Your task to perform on an android device: uninstall "Facebook" Image 0: 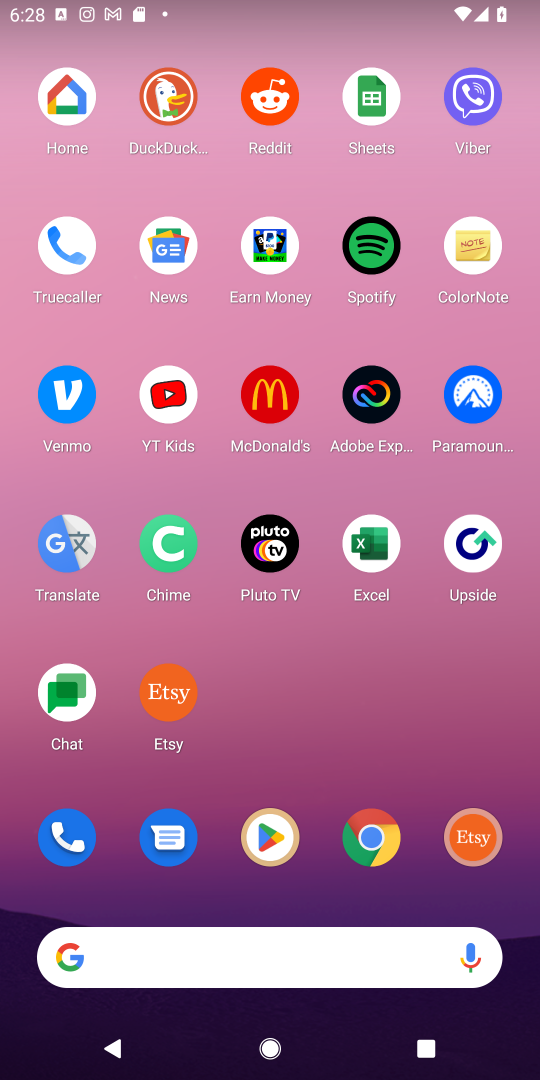
Step 0: press home button
Your task to perform on an android device: uninstall "Facebook" Image 1: 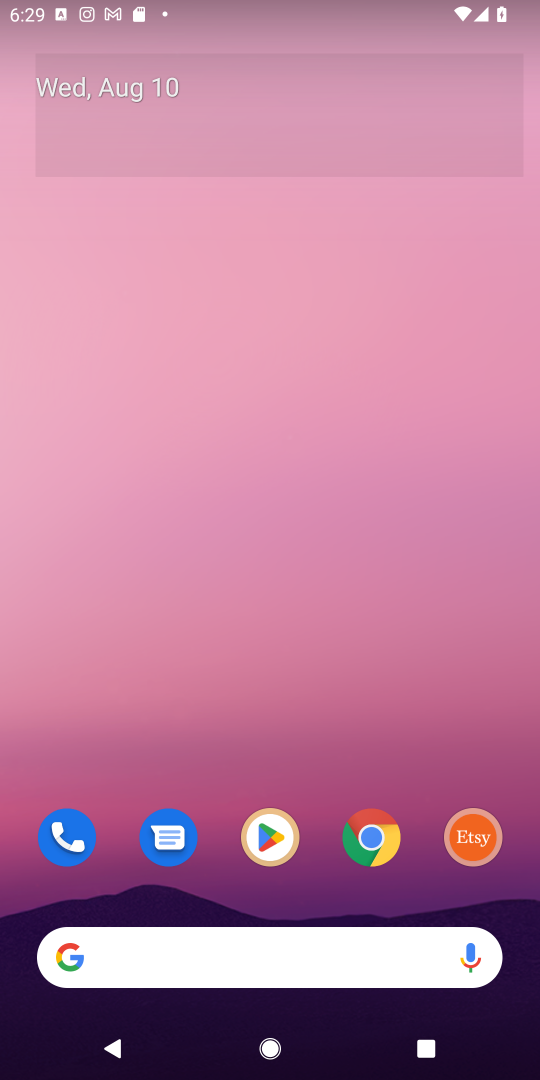
Step 1: click (266, 823)
Your task to perform on an android device: uninstall "Facebook" Image 2: 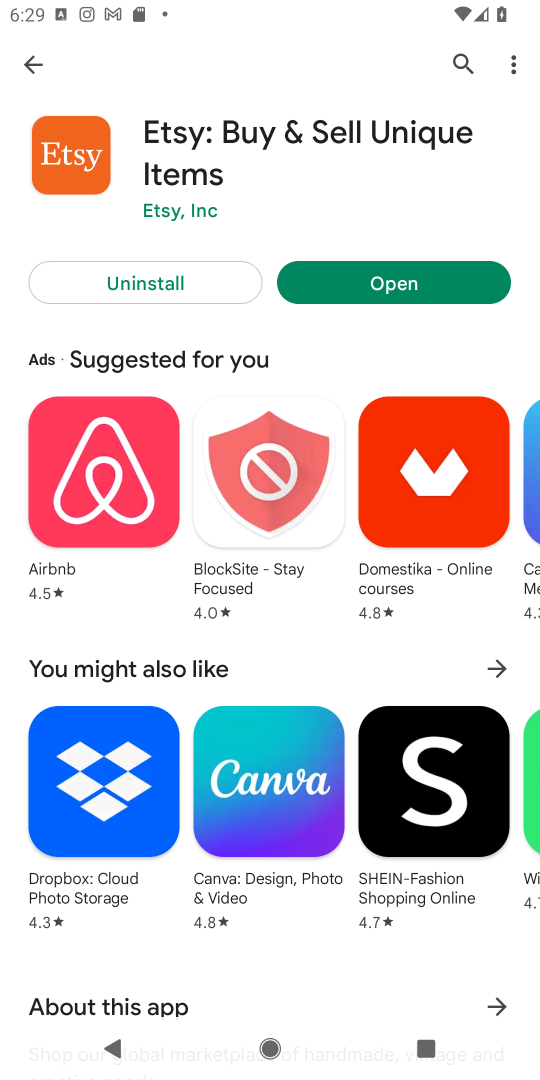
Step 2: click (460, 64)
Your task to perform on an android device: uninstall "Facebook" Image 3: 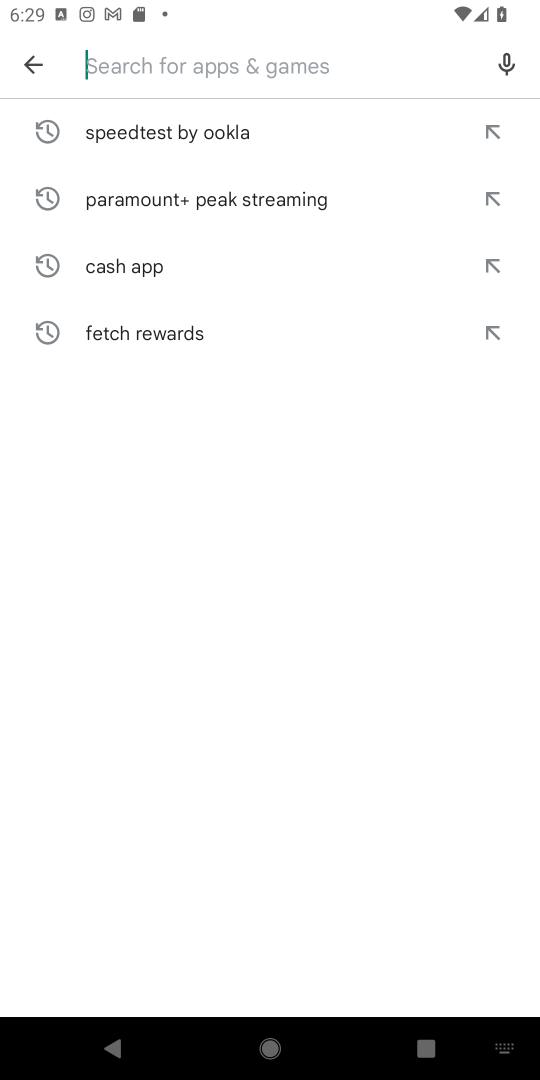
Step 3: type "Facebook"
Your task to perform on an android device: uninstall "Facebook" Image 4: 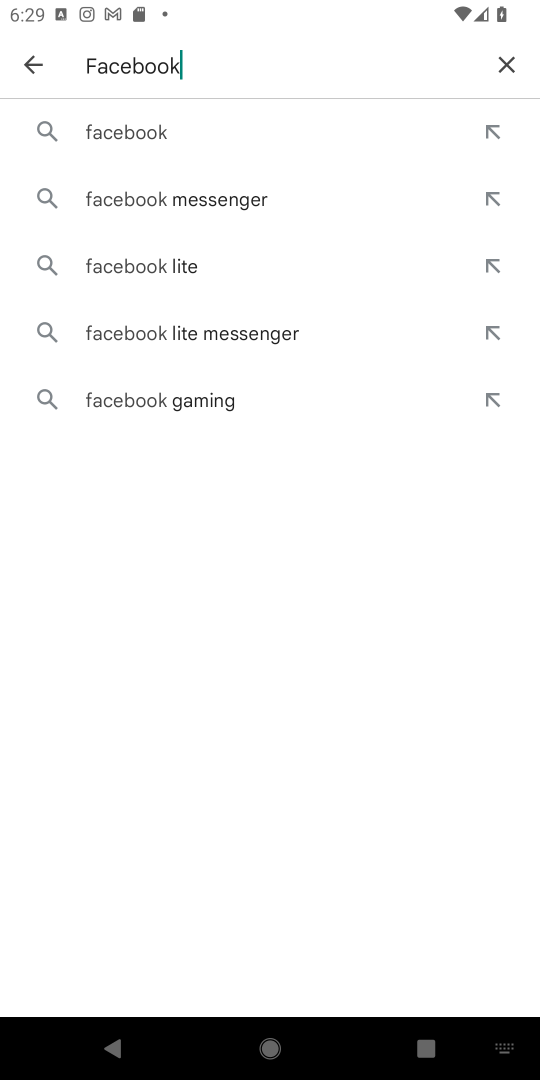
Step 4: click (150, 126)
Your task to perform on an android device: uninstall "Facebook" Image 5: 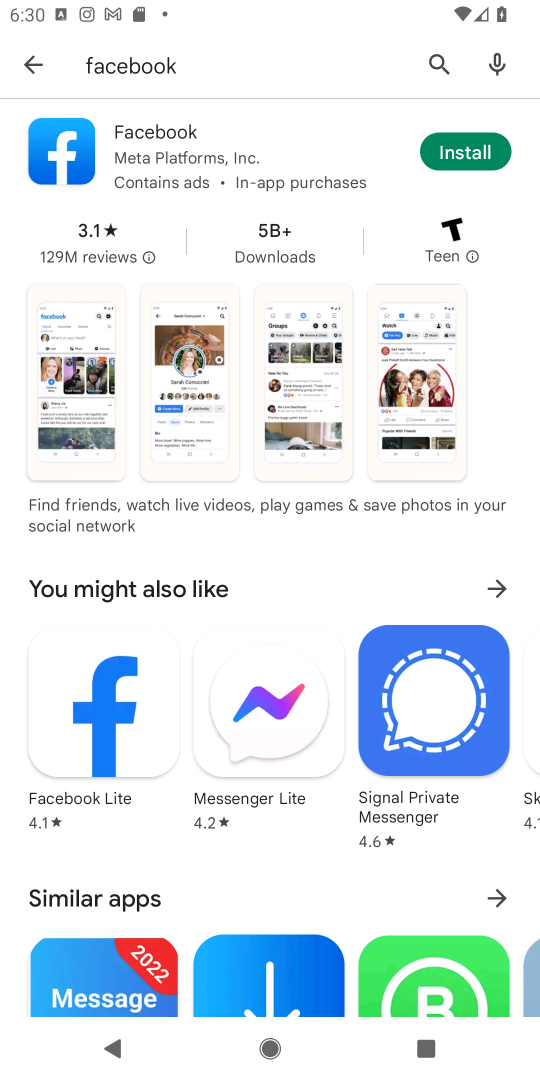
Step 5: task complete